Your task to perform on an android device: Open calendar and show me the first week of next month Image 0: 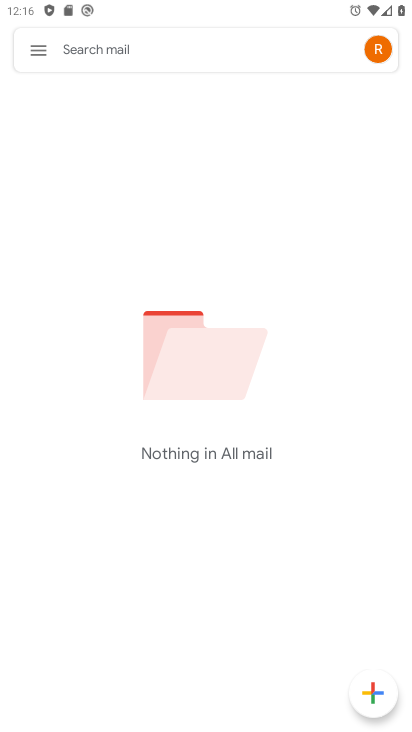
Step 0: press back button
Your task to perform on an android device: Open calendar and show me the first week of next month Image 1: 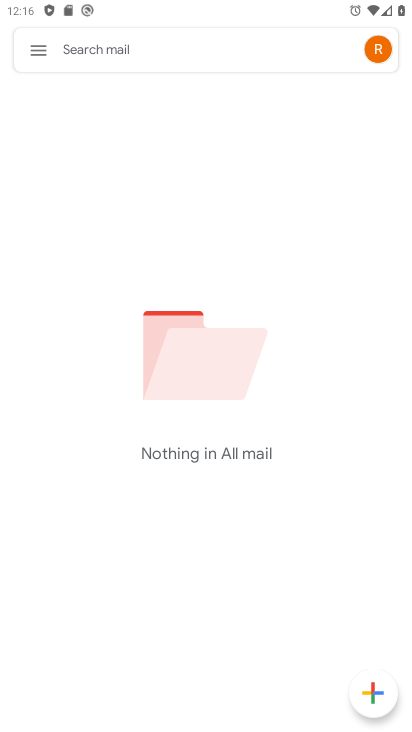
Step 1: press back button
Your task to perform on an android device: Open calendar and show me the first week of next month Image 2: 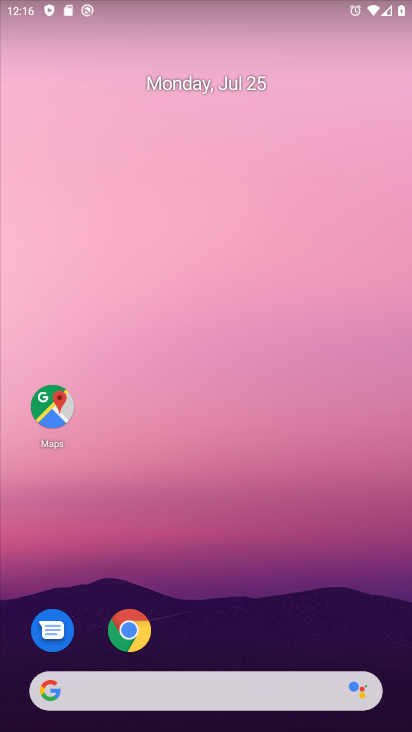
Step 2: drag from (314, 637) to (257, 205)
Your task to perform on an android device: Open calendar and show me the first week of next month Image 3: 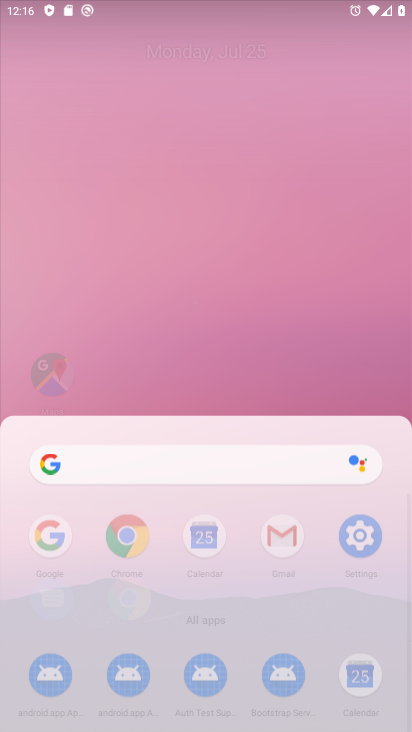
Step 3: drag from (242, 606) to (242, 313)
Your task to perform on an android device: Open calendar and show me the first week of next month Image 4: 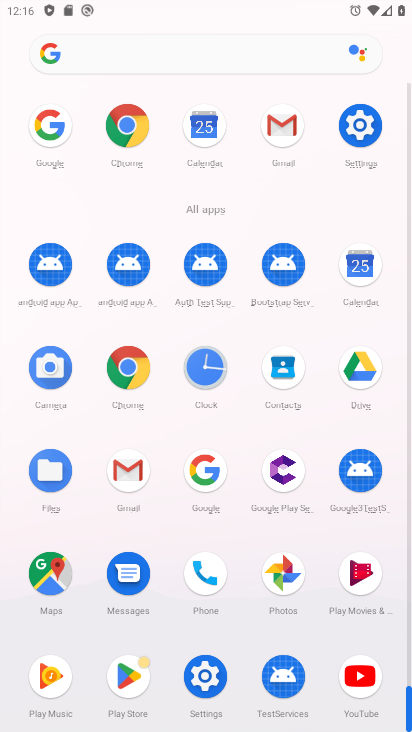
Step 4: click (341, 268)
Your task to perform on an android device: Open calendar and show me the first week of next month Image 5: 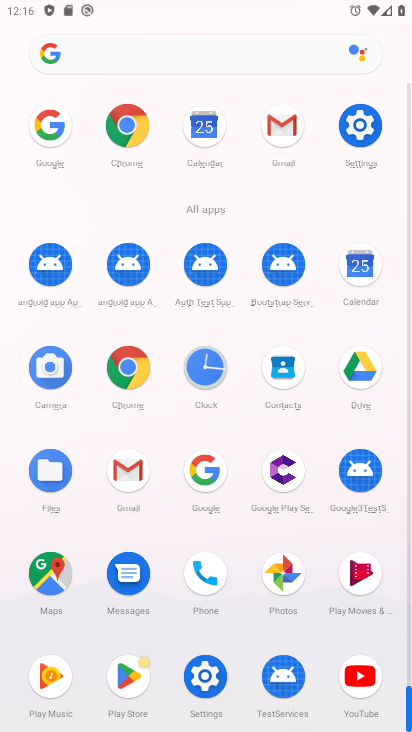
Step 5: click (351, 266)
Your task to perform on an android device: Open calendar and show me the first week of next month Image 6: 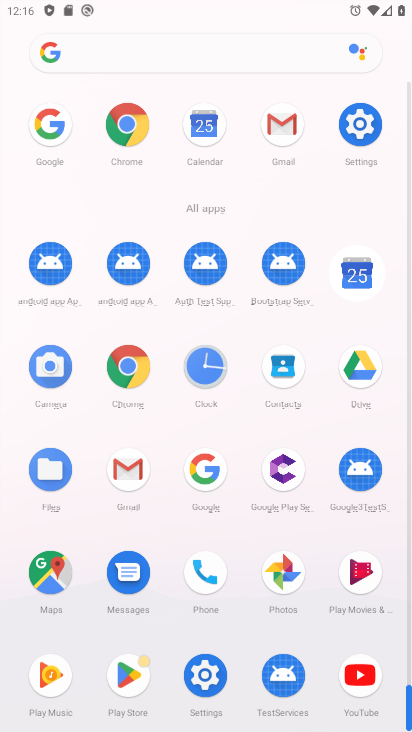
Step 6: click (352, 266)
Your task to perform on an android device: Open calendar and show me the first week of next month Image 7: 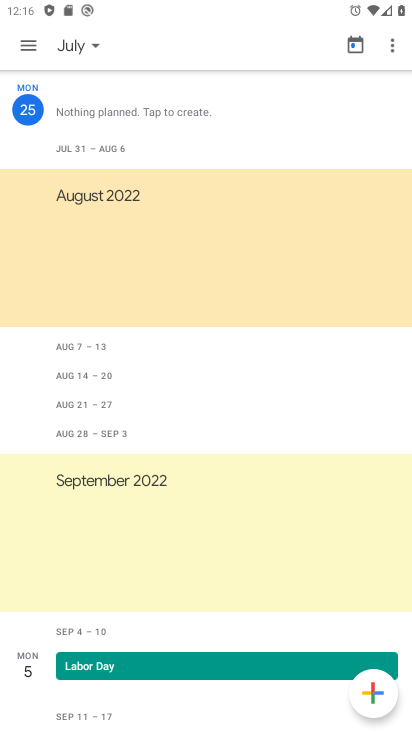
Step 7: click (87, 28)
Your task to perform on an android device: Open calendar and show me the first week of next month Image 8: 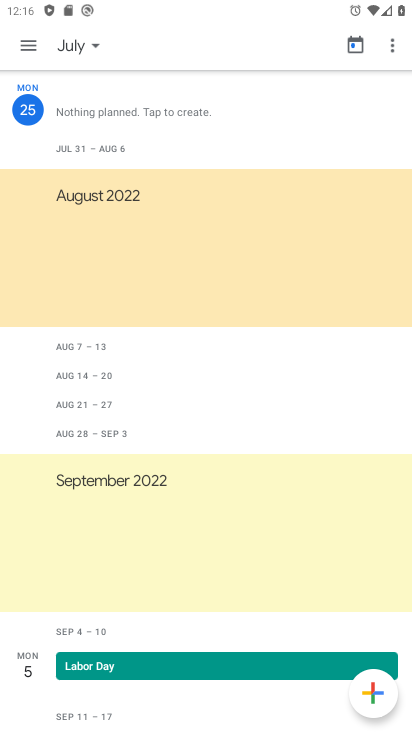
Step 8: click (92, 52)
Your task to perform on an android device: Open calendar and show me the first week of next month Image 9: 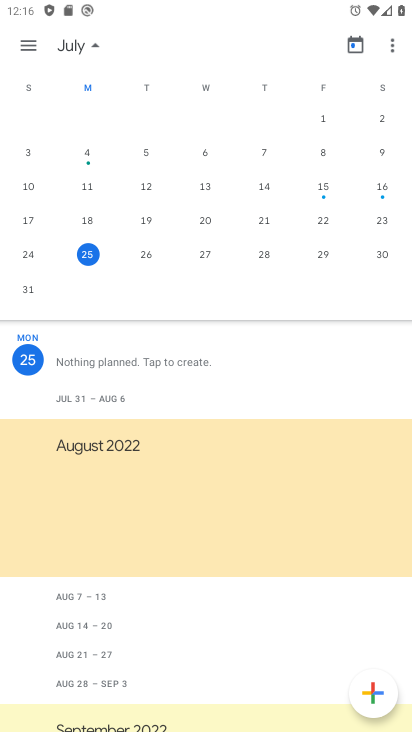
Step 9: click (96, 49)
Your task to perform on an android device: Open calendar and show me the first week of next month Image 10: 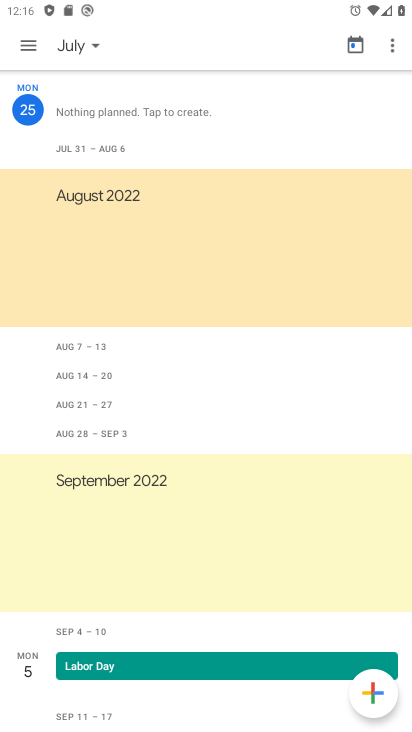
Step 10: click (21, 298)
Your task to perform on an android device: Open calendar and show me the first week of next month Image 11: 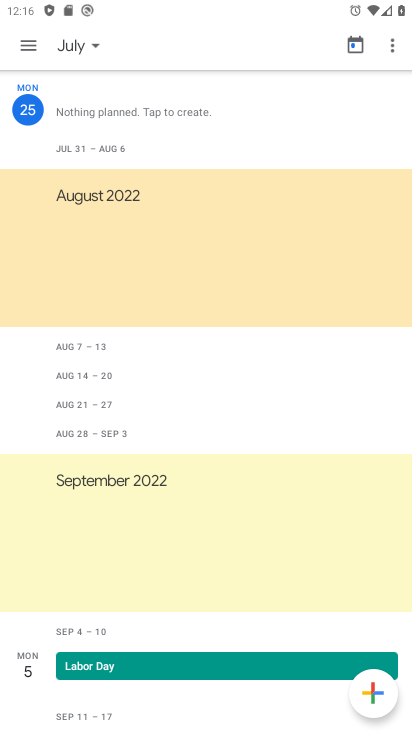
Step 11: click (93, 47)
Your task to perform on an android device: Open calendar and show me the first week of next month Image 12: 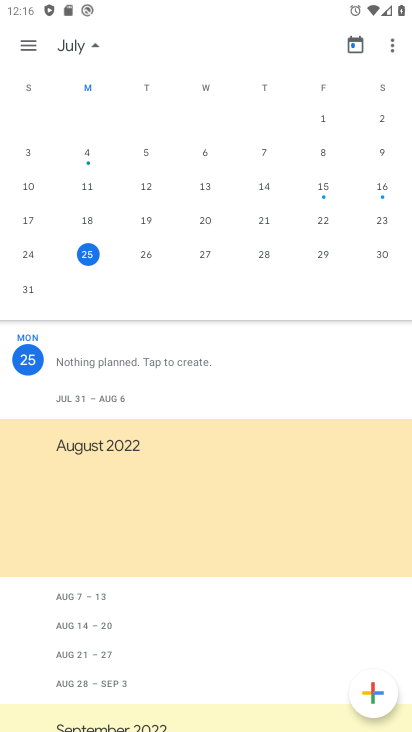
Step 12: drag from (245, 203) to (5, 279)
Your task to perform on an android device: Open calendar and show me the first week of next month Image 13: 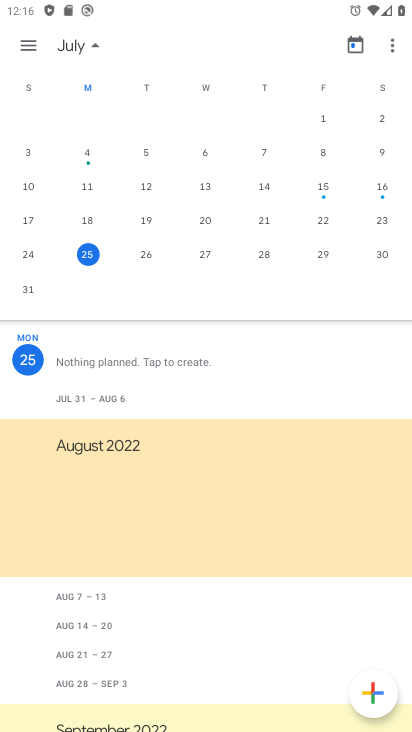
Step 13: drag from (230, 155) to (32, 218)
Your task to perform on an android device: Open calendar and show me the first week of next month Image 14: 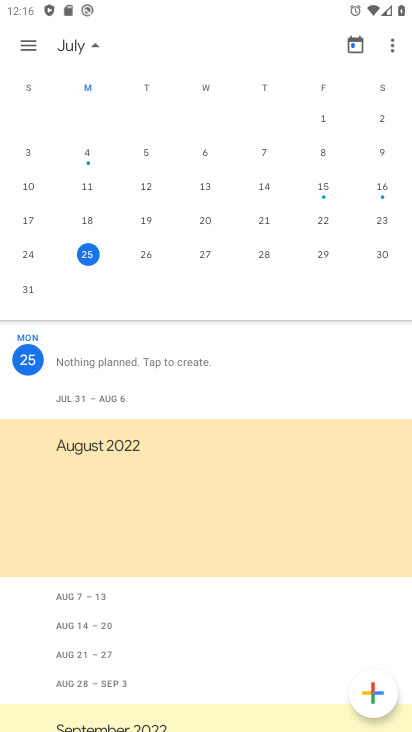
Step 14: drag from (338, 171) to (2, 209)
Your task to perform on an android device: Open calendar and show me the first week of next month Image 15: 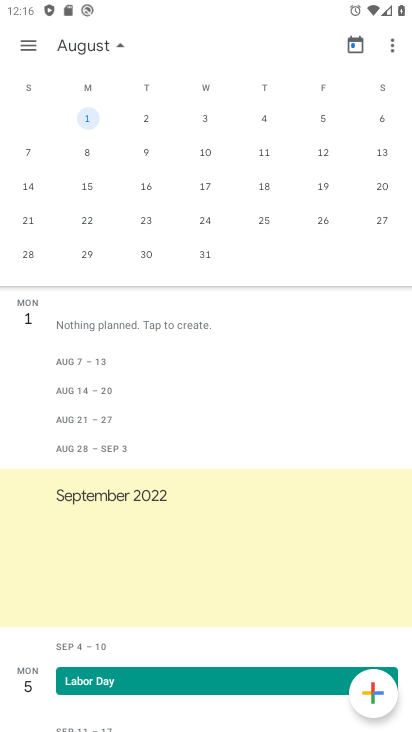
Step 15: click (304, 237)
Your task to perform on an android device: Open calendar and show me the first week of next month Image 16: 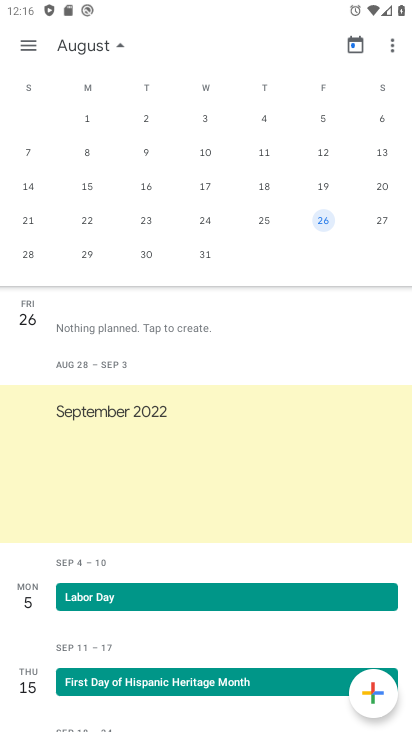
Step 16: drag from (64, 211) to (411, 164)
Your task to perform on an android device: Open calendar and show me the first week of next month Image 17: 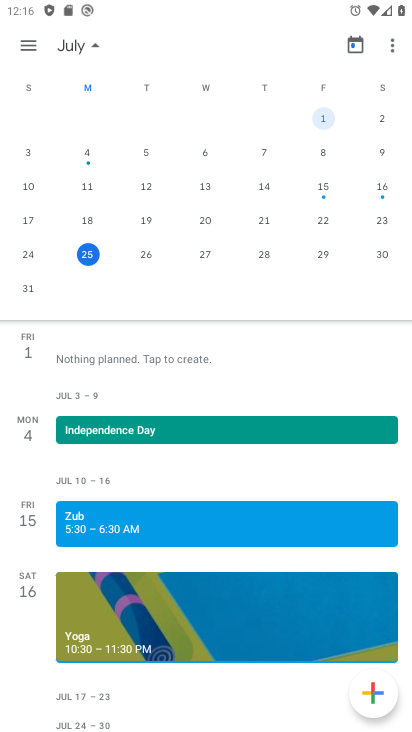
Step 17: drag from (80, 185) to (411, 193)
Your task to perform on an android device: Open calendar and show me the first week of next month Image 18: 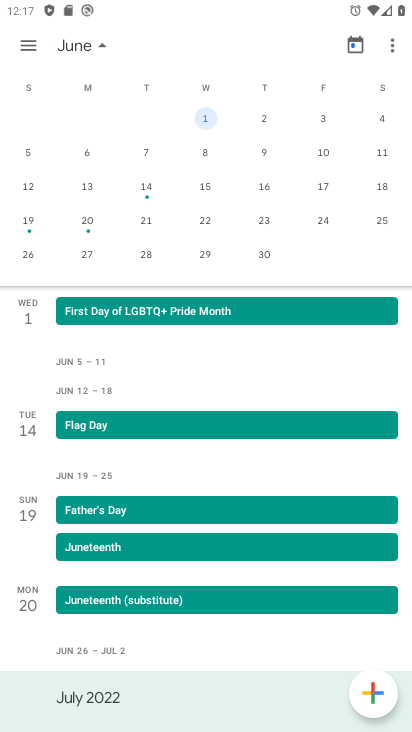
Step 18: drag from (309, 201) to (17, 282)
Your task to perform on an android device: Open calendar and show me the first week of next month Image 19: 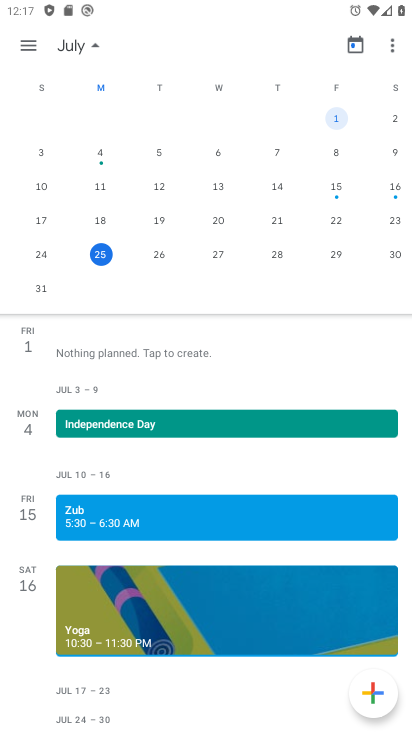
Step 19: drag from (77, 232) to (42, 192)
Your task to perform on an android device: Open calendar and show me the first week of next month Image 20: 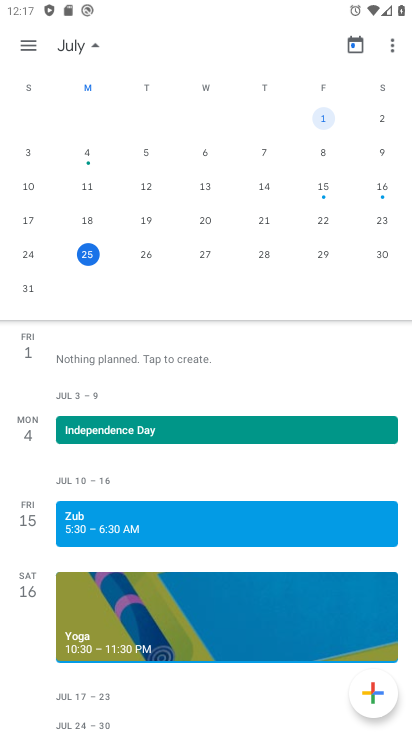
Step 20: drag from (121, 217) to (6, 198)
Your task to perform on an android device: Open calendar and show me the first week of next month Image 21: 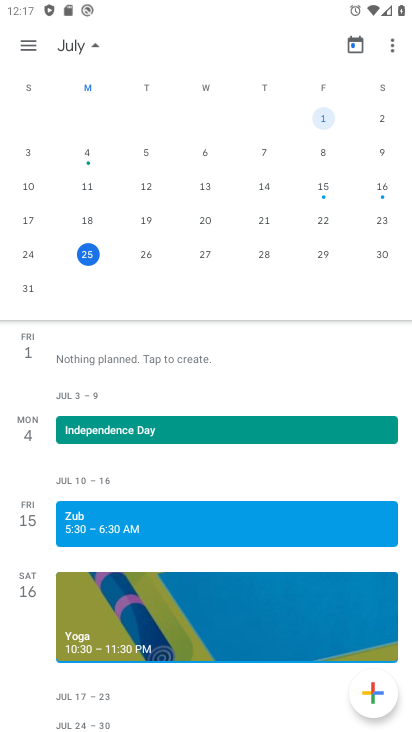
Step 21: drag from (226, 172) to (3, 241)
Your task to perform on an android device: Open calendar and show me the first week of next month Image 22: 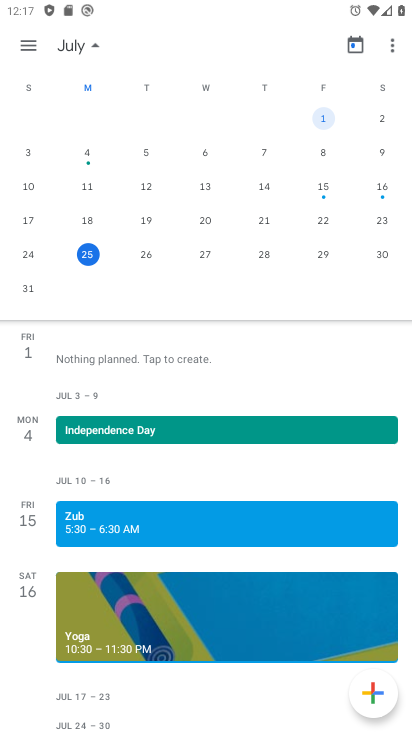
Step 22: drag from (236, 198) to (6, 230)
Your task to perform on an android device: Open calendar and show me the first week of next month Image 23: 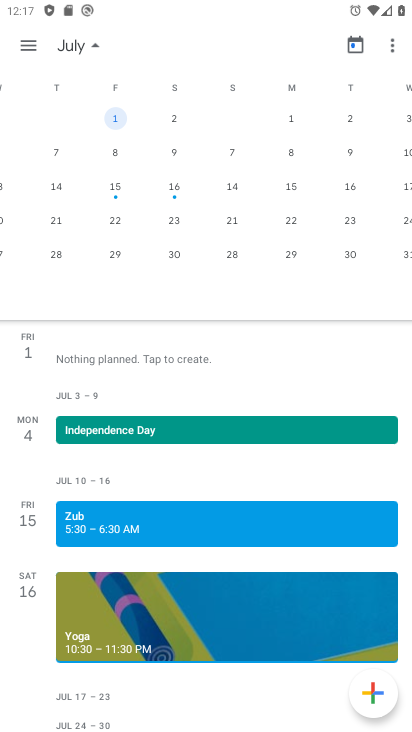
Step 23: drag from (101, 237) to (27, 230)
Your task to perform on an android device: Open calendar and show me the first week of next month Image 24: 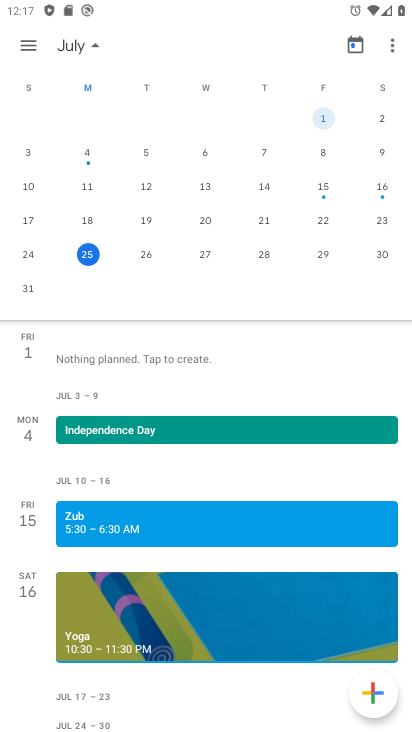
Step 24: drag from (73, 241) to (30, 238)
Your task to perform on an android device: Open calendar and show me the first week of next month Image 25: 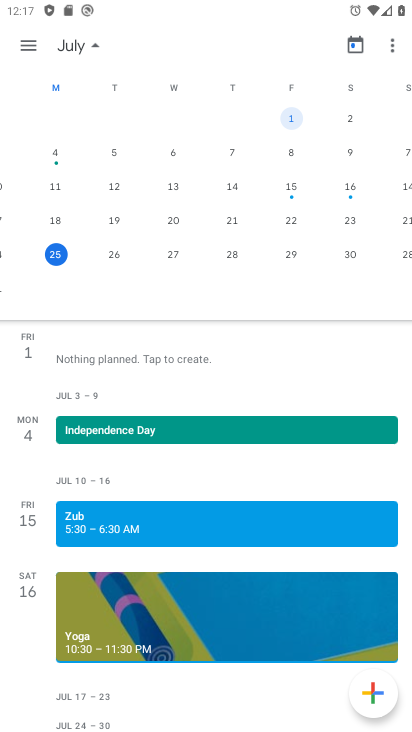
Step 25: drag from (268, 224) to (36, 240)
Your task to perform on an android device: Open calendar and show me the first week of next month Image 26: 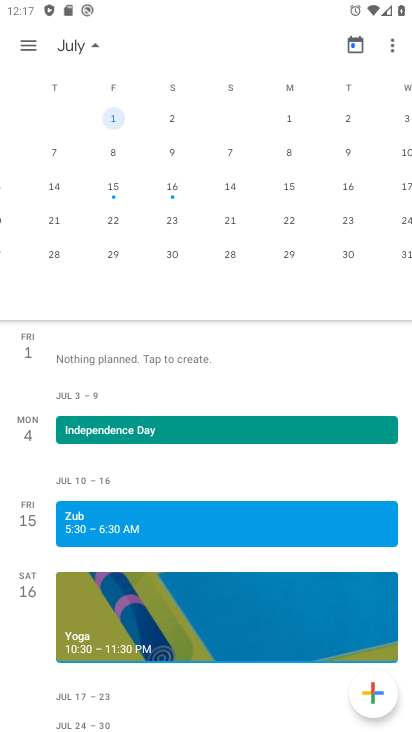
Step 26: drag from (322, 244) to (3, 206)
Your task to perform on an android device: Open calendar and show me the first week of next month Image 27: 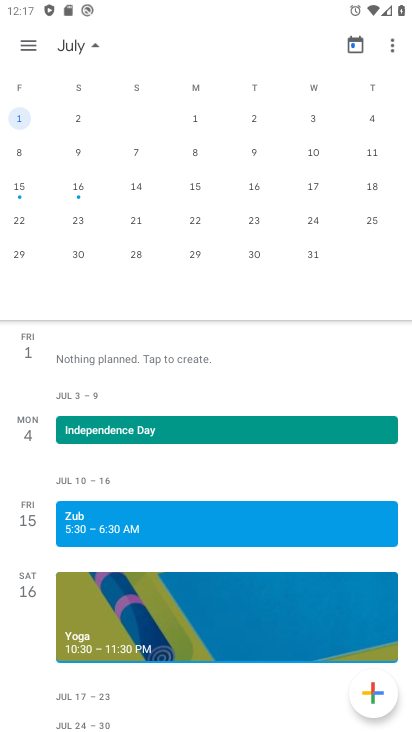
Step 27: drag from (383, 189) to (1, 216)
Your task to perform on an android device: Open calendar and show me the first week of next month Image 28: 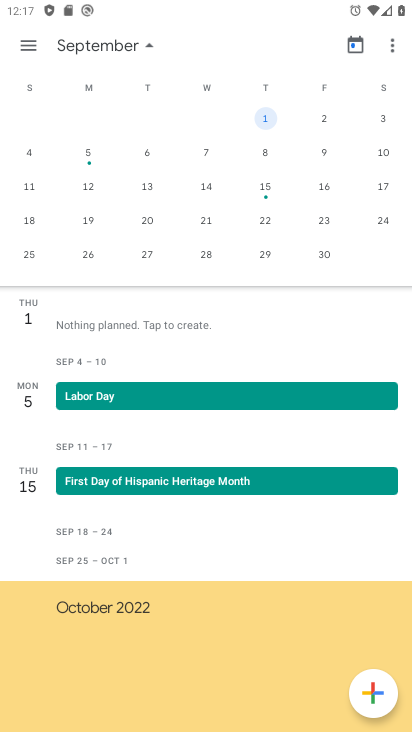
Step 28: drag from (148, 211) to (11, 202)
Your task to perform on an android device: Open calendar and show me the first week of next month Image 29: 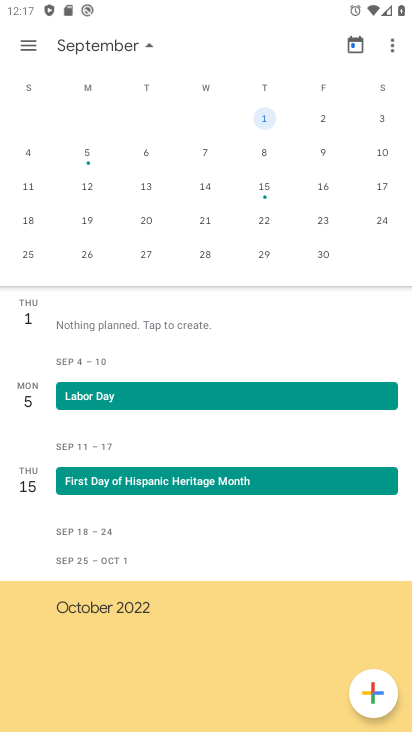
Step 29: drag from (83, 206) to (391, 240)
Your task to perform on an android device: Open calendar and show me the first week of next month Image 30: 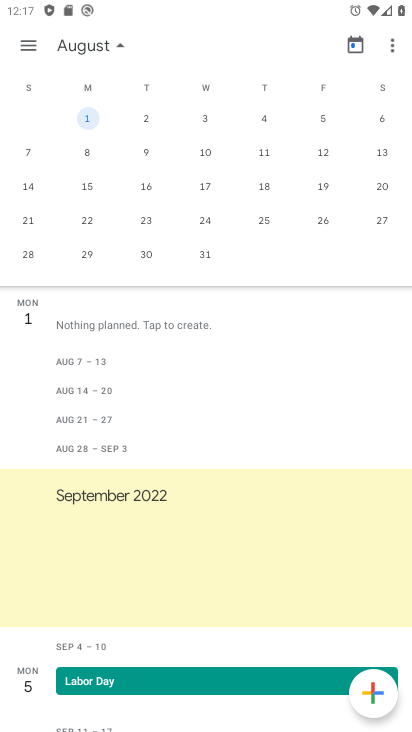
Step 30: click (147, 122)
Your task to perform on an android device: Open calendar and show me the first week of next month Image 31: 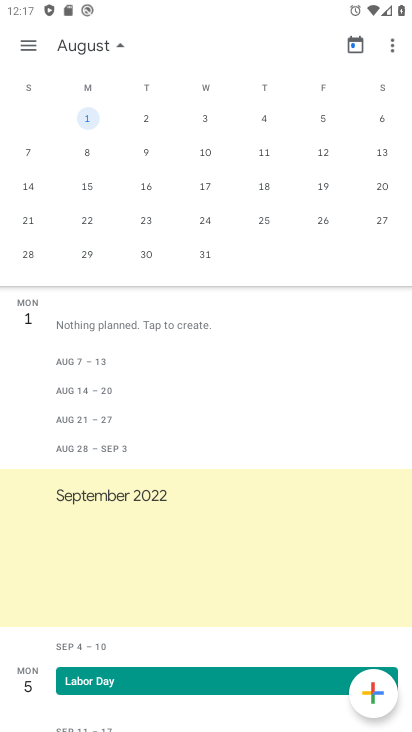
Step 31: click (145, 120)
Your task to perform on an android device: Open calendar and show me the first week of next month Image 32: 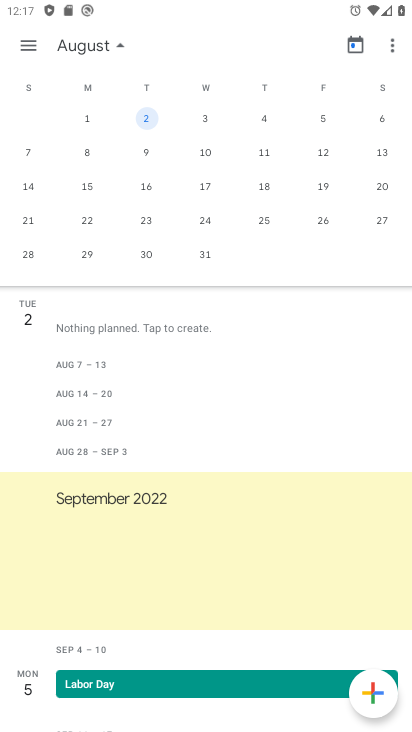
Step 32: click (144, 121)
Your task to perform on an android device: Open calendar and show me the first week of next month Image 33: 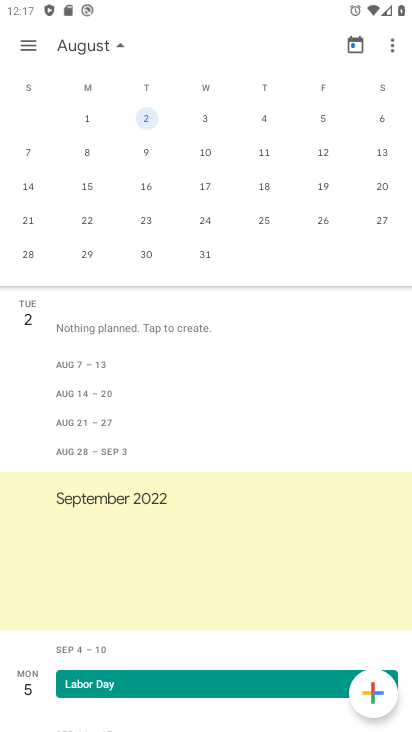
Step 33: click (144, 121)
Your task to perform on an android device: Open calendar and show me the first week of next month Image 34: 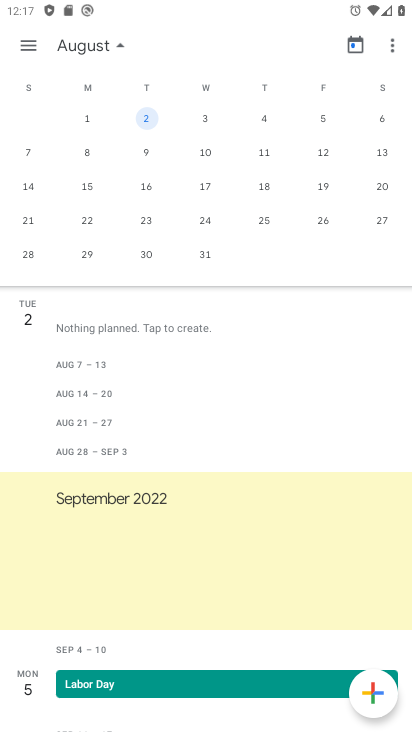
Step 34: task complete